Your task to perform on an android device: turn smart compose on in the gmail app Image 0: 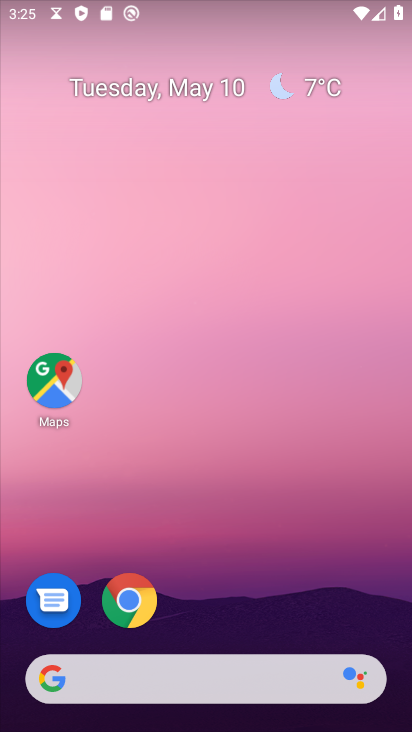
Step 0: drag from (302, 569) to (274, 233)
Your task to perform on an android device: turn smart compose on in the gmail app Image 1: 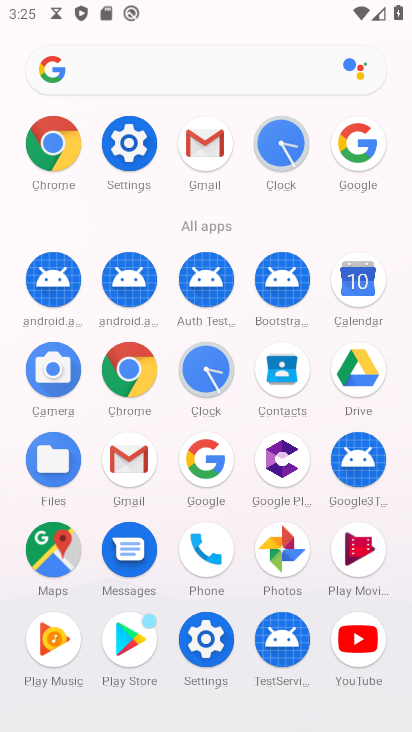
Step 1: click (204, 138)
Your task to perform on an android device: turn smart compose on in the gmail app Image 2: 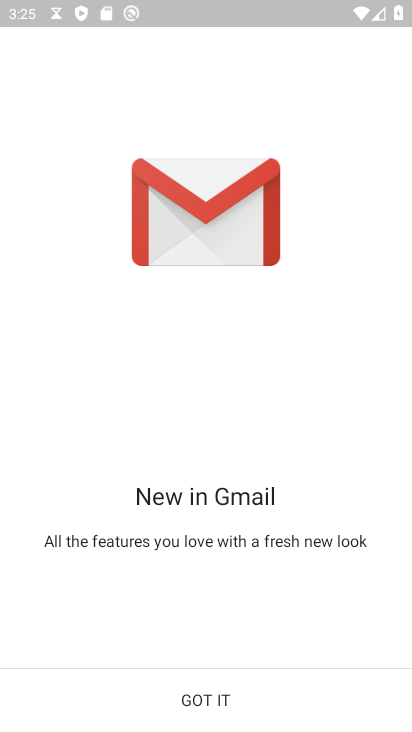
Step 2: task complete